Your task to perform on an android device: change the clock display to digital Image 0: 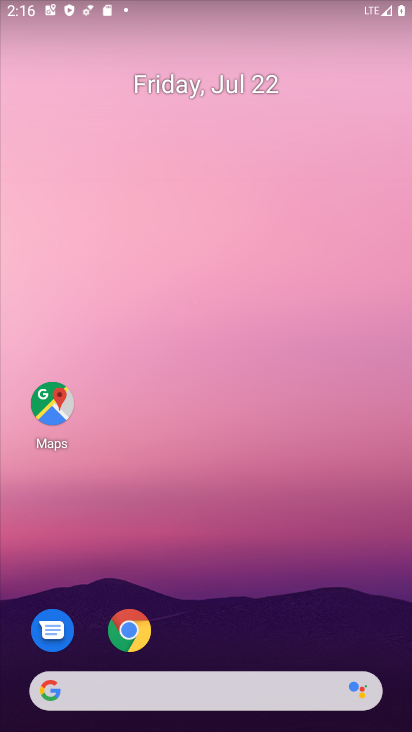
Step 0: drag from (218, 685) to (217, 8)
Your task to perform on an android device: change the clock display to digital Image 1: 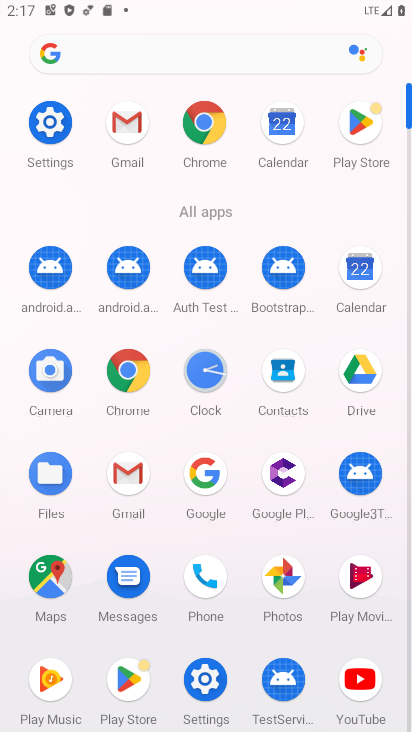
Step 1: click (198, 393)
Your task to perform on an android device: change the clock display to digital Image 2: 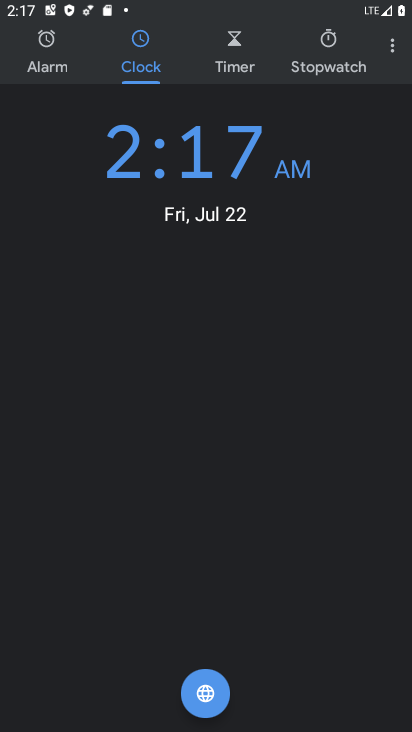
Step 2: click (387, 44)
Your task to perform on an android device: change the clock display to digital Image 3: 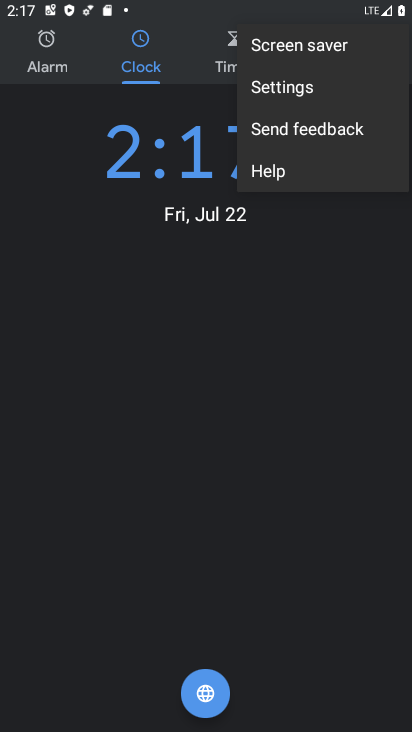
Step 3: click (299, 82)
Your task to perform on an android device: change the clock display to digital Image 4: 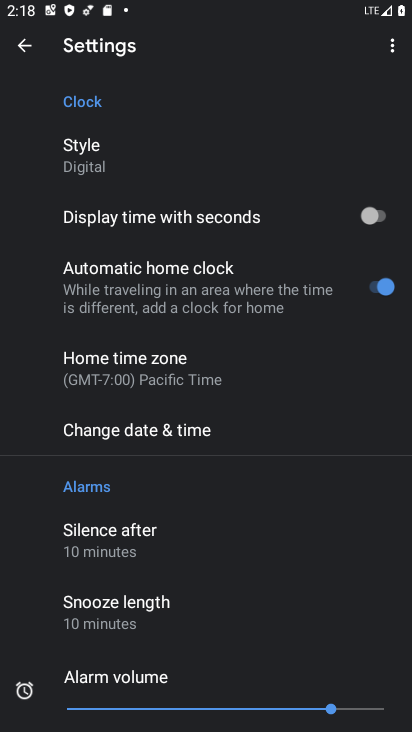
Step 4: click (99, 151)
Your task to perform on an android device: change the clock display to digital Image 5: 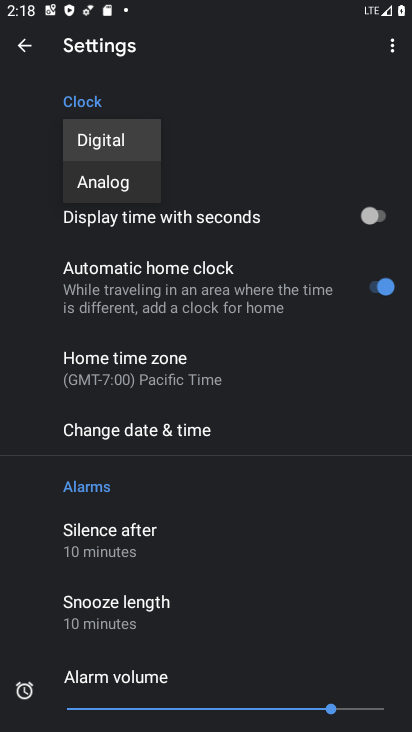
Step 5: click (117, 141)
Your task to perform on an android device: change the clock display to digital Image 6: 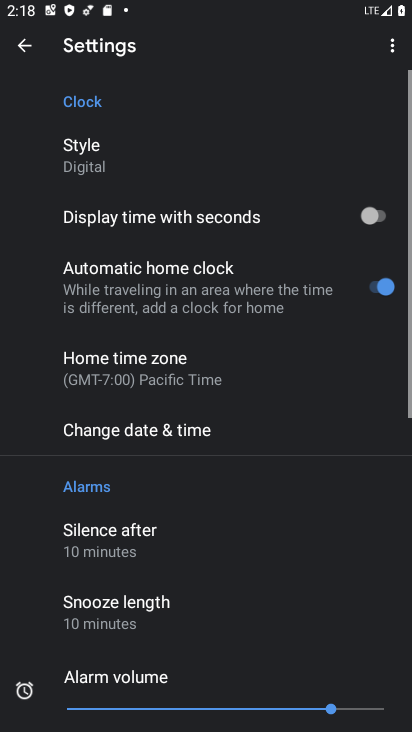
Step 6: task complete